Your task to perform on an android device: see creations saved in the google photos Image 0: 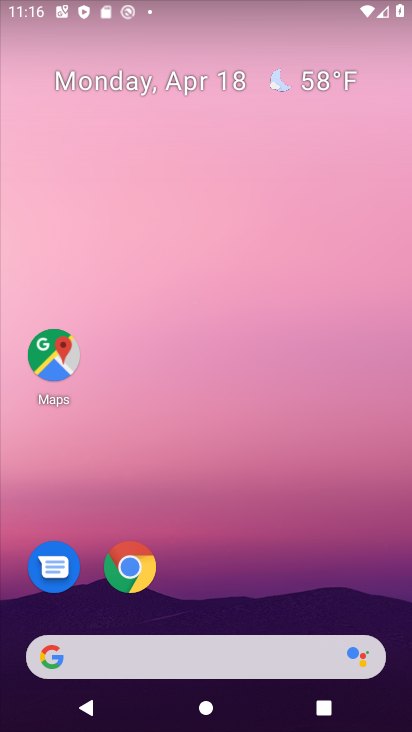
Step 0: drag from (397, 643) to (364, 108)
Your task to perform on an android device: see creations saved in the google photos Image 1: 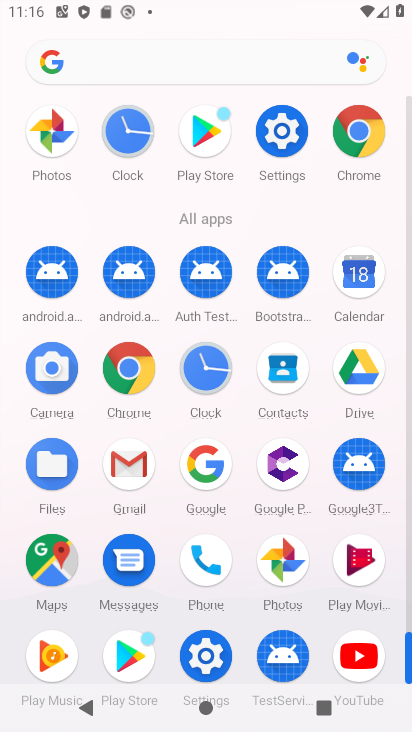
Step 1: click (283, 558)
Your task to perform on an android device: see creations saved in the google photos Image 2: 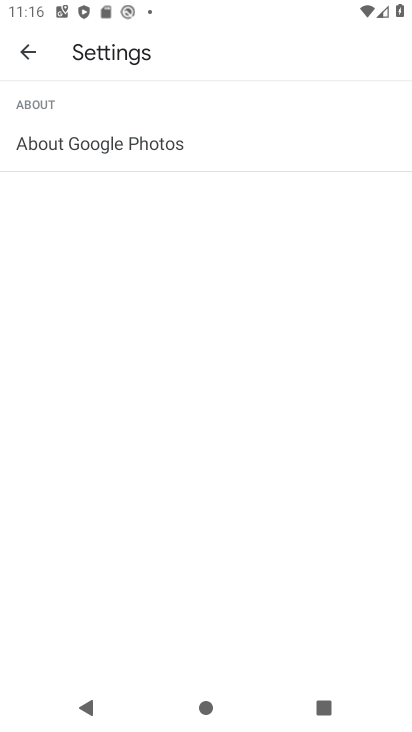
Step 2: press back button
Your task to perform on an android device: see creations saved in the google photos Image 3: 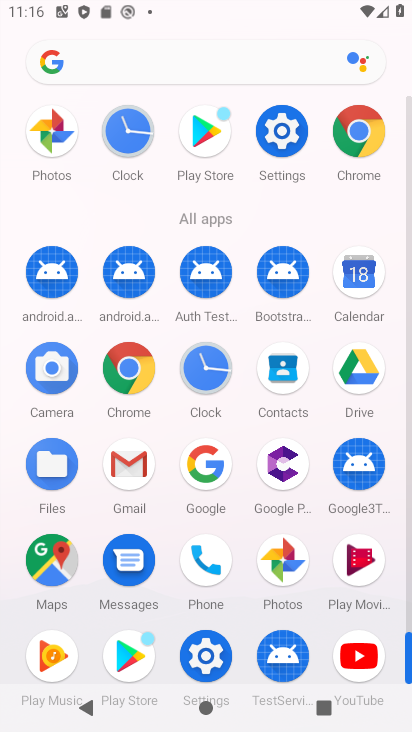
Step 3: click (281, 559)
Your task to perform on an android device: see creations saved in the google photos Image 4: 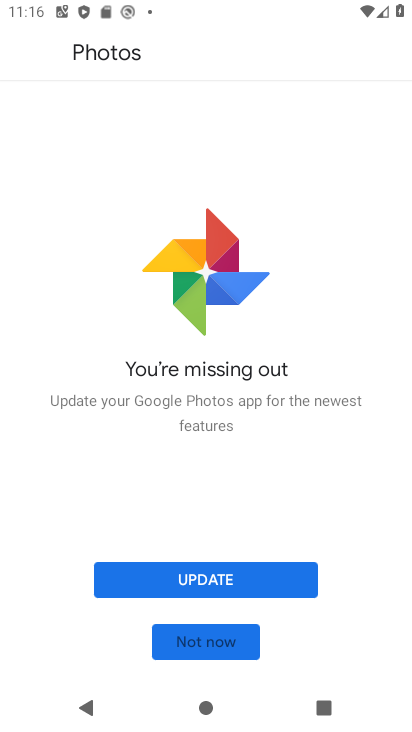
Step 4: task complete